Your task to perform on an android device: change keyboard looks Image 0: 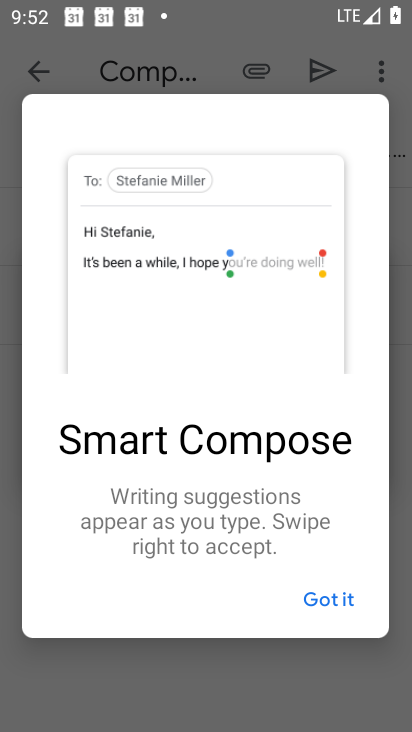
Step 0: press home button
Your task to perform on an android device: change keyboard looks Image 1: 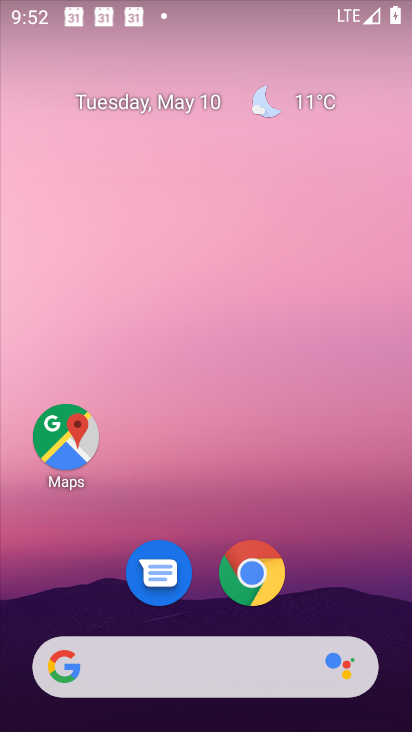
Step 1: drag from (303, 531) to (294, 171)
Your task to perform on an android device: change keyboard looks Image 2: 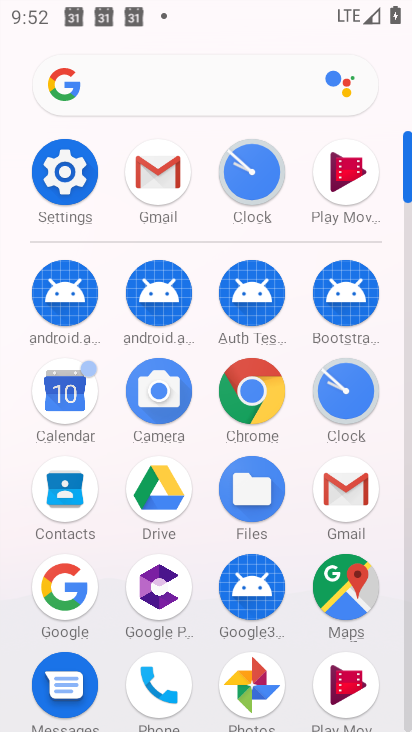
Step 2: click (43, 190)
Your task to perform on an android device: change keyboard looks Image 3: 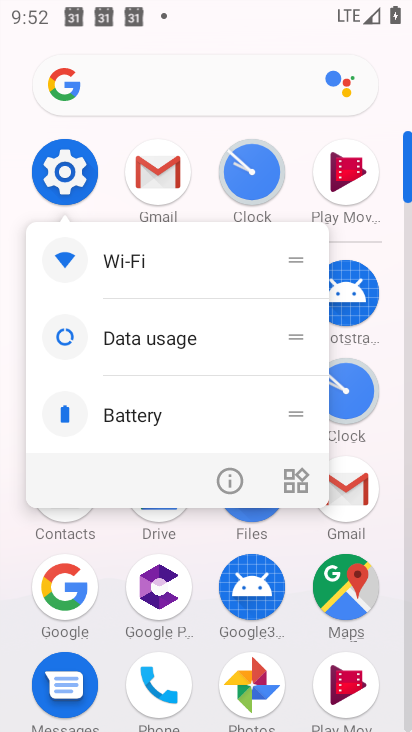
Step 3: click (58, 156)
Your task to perform on an android device: change keyboard looks Image 4: 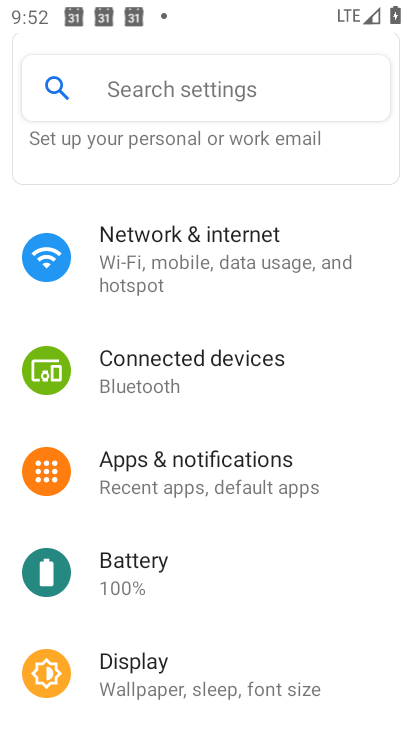
Step 4: drag from (282, 669) to (327, 252)
Your task to perform on an android device: change keyboard looks Image 5: 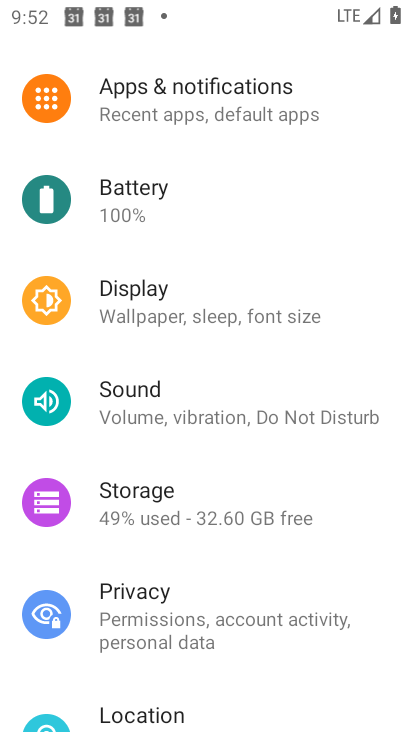
Step 5: drag from (278, 646) to (330, 231)
Your task to perform on an android device: change keyboard looks Image 6: 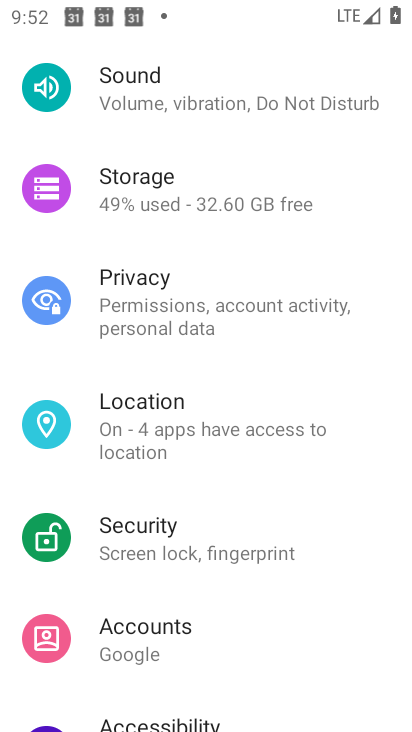
Step 6: drag from (320, 618) to (351, 280)
Your task to perform on an android device: change keyboard looks Image 7: 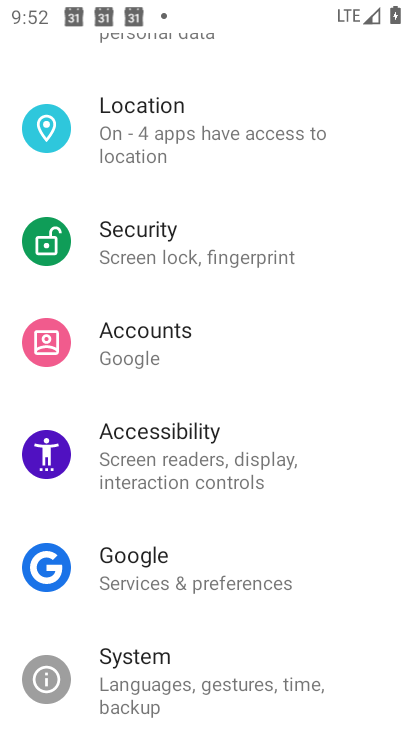
Step 7: drag from (250, 187) to (286, 703)
Your task to perform on an android device: change keyboard looks Image 8: 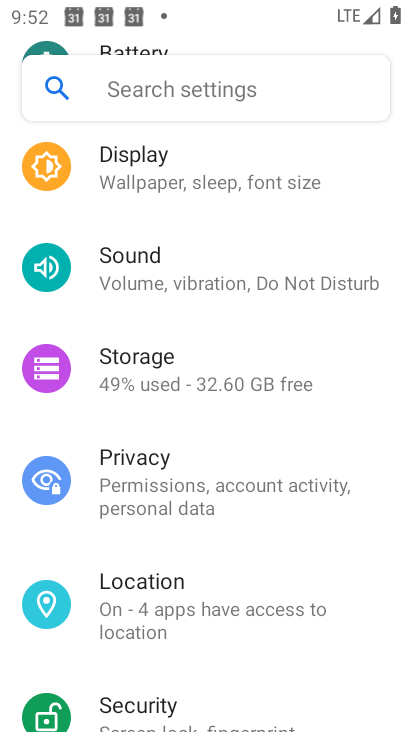
Step 8: drag from (302, 256) to (341, 156)
Your task to perform on an android device: change keyboard looks Image 9: 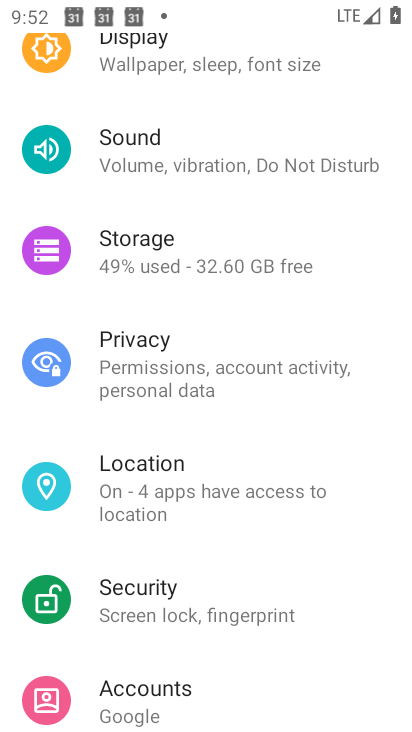
Step 9: drag from (249, 551) to (273, 211)
Your task to perform on an android device: change keyboard looks Image 10: 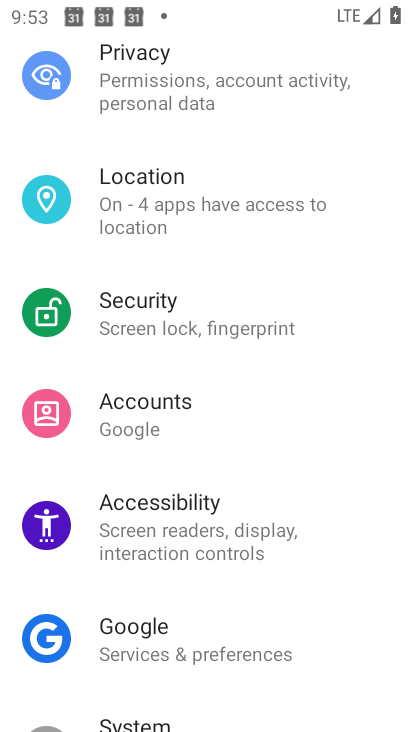
Step 10: drag from (267, 588) to (279, 300)
Your task to perform on an android device: change keyboard looks Image 11: 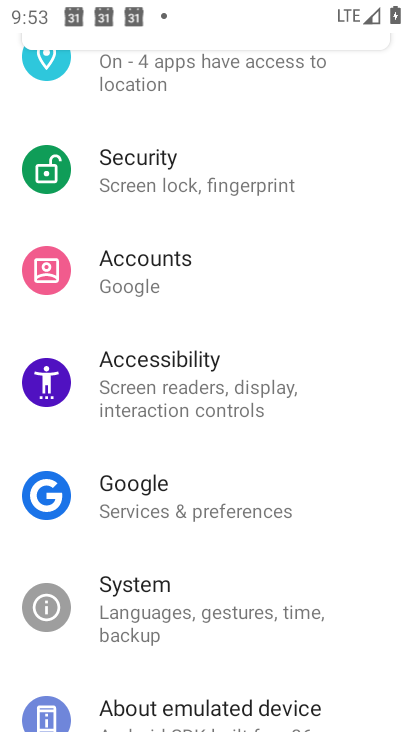
Step 11: click (147, 636)
Your task to perform on an android device: change keyboard looks Image 12: 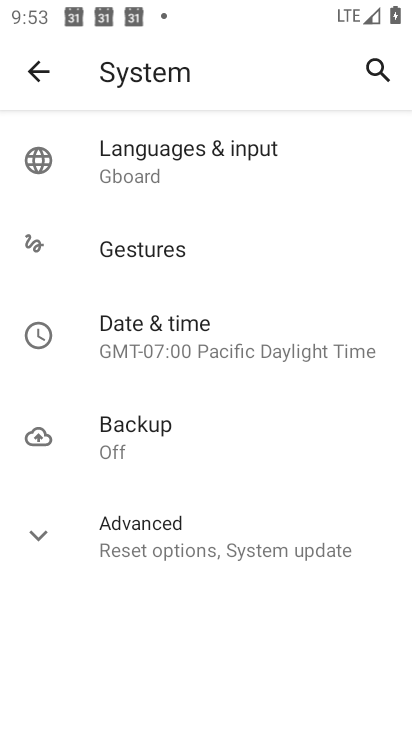
Step 12: click (151, 179)
Your task to perform on an android device: change keyboard looks Image 13: 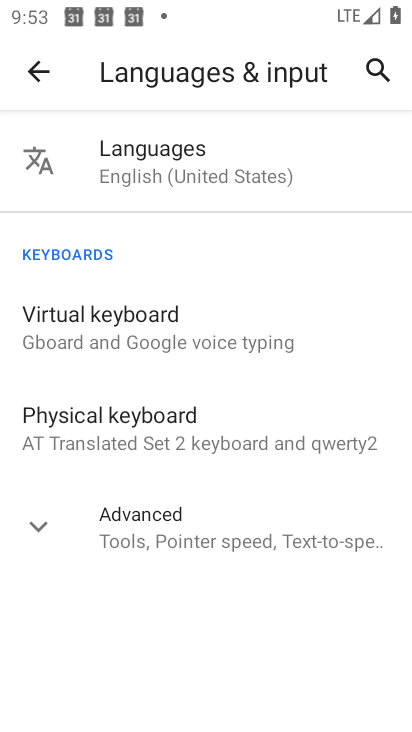
Step 13: click (93, 323)
Your task to perform on an android device: change keyboard looks Image 14: 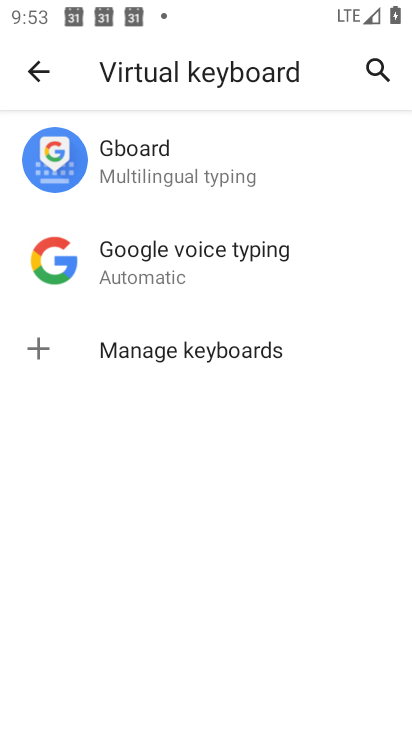
Step 14: click (129, 195)
Your task to perform on an android device: change keyboard looks Image 15: 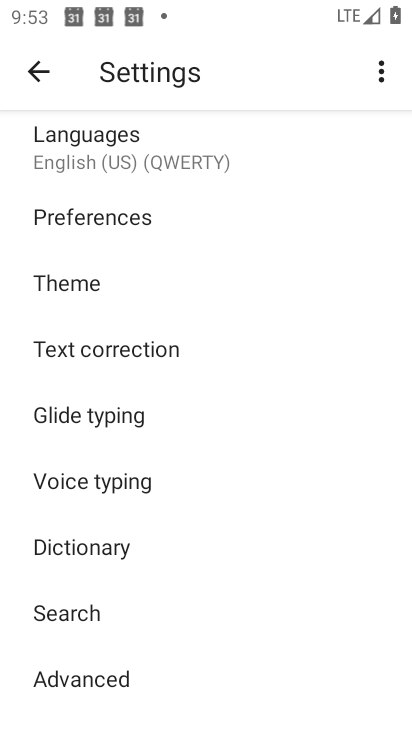
Step 15: click (110, 282)
Your task to perform on an android device: change keyboard looks Image 16: 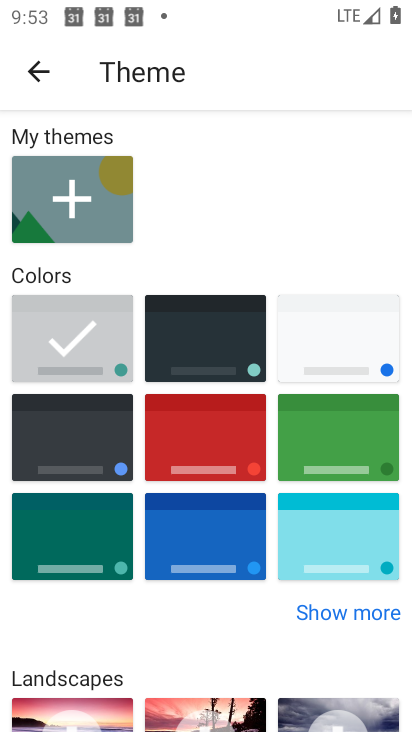
Step 16: click (211, 348)
Your task to perform on an android device: change keyboard looks Image 17: 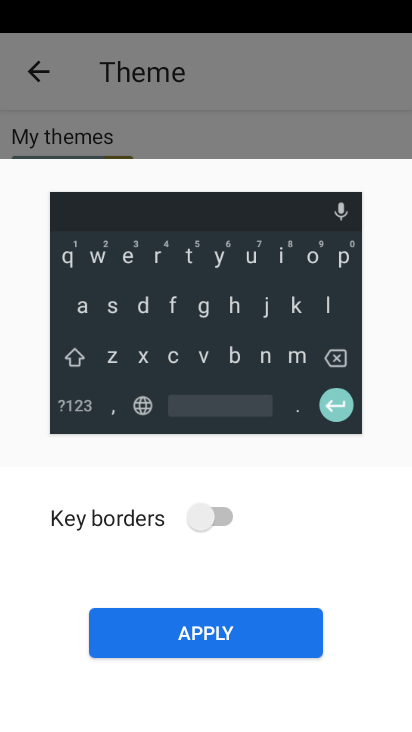
Step 17: click (292, 626)
Your task to perform on an android device: change keyboard looks Image 18: 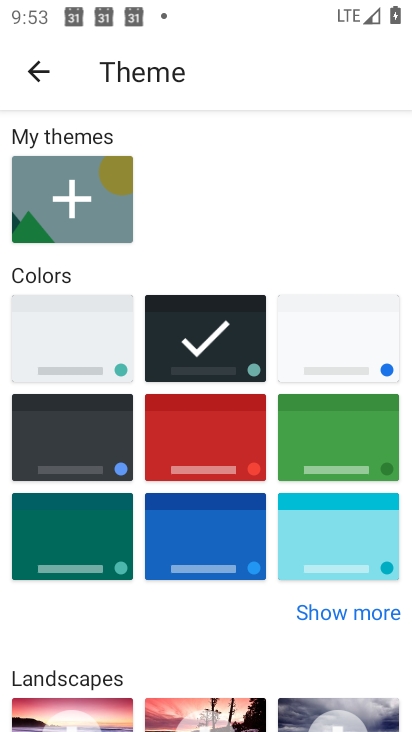
Step 18: task complete